Your task to perform on an android device: When is my next appointment? Image 0: 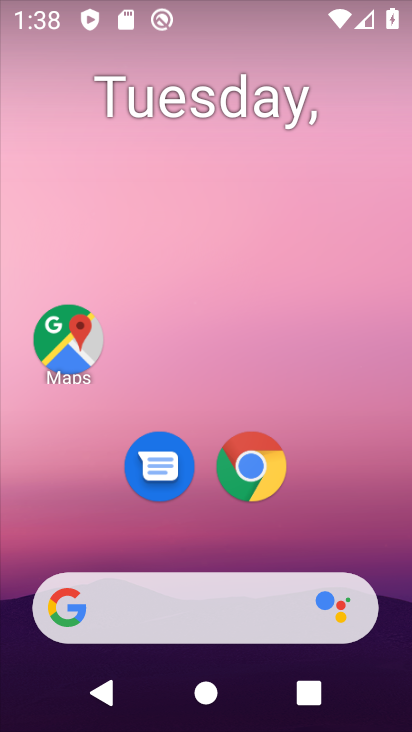
Step 0: drag from (328, 523) to (307, 206)
Your task to perform on an android device: When is my next appointment? Image 1: 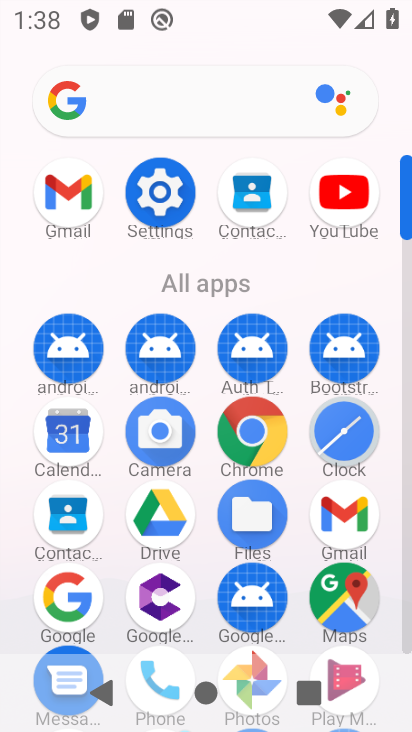
Step 1: click (170, 208)
Your task to perform on an android device: When is my next appointment? Image 2: 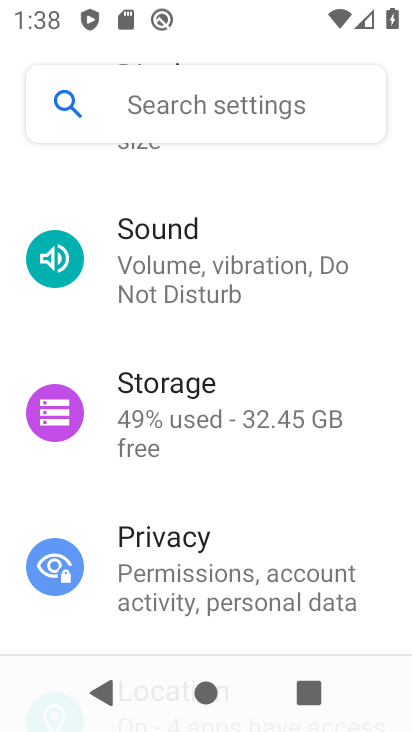
Step 2: task complete